Your task to perform on an android device: Open maps Image 0: 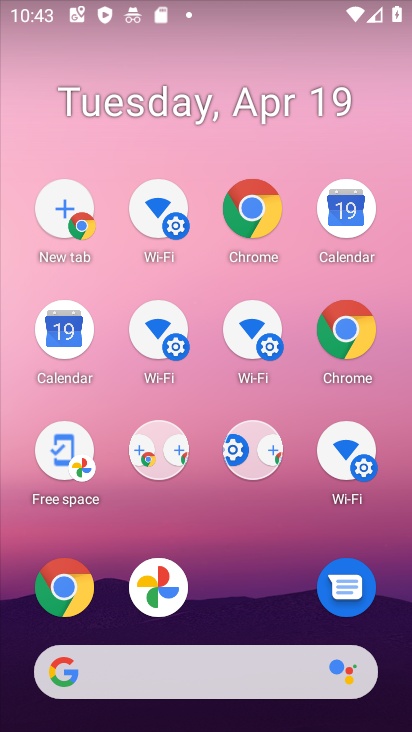
Step 0: drag from (80, 353) to (394, 602)
Your task to perform on an android device: Open maps Image 1: 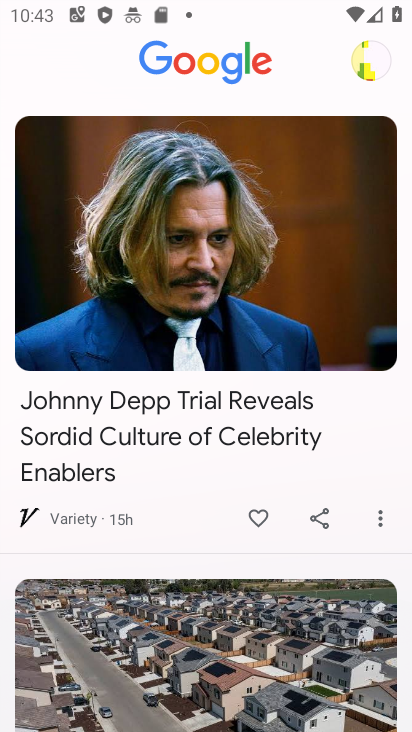
Step 1: click (386, 429)
Your task to perform on an android device: Open maps Image 2: 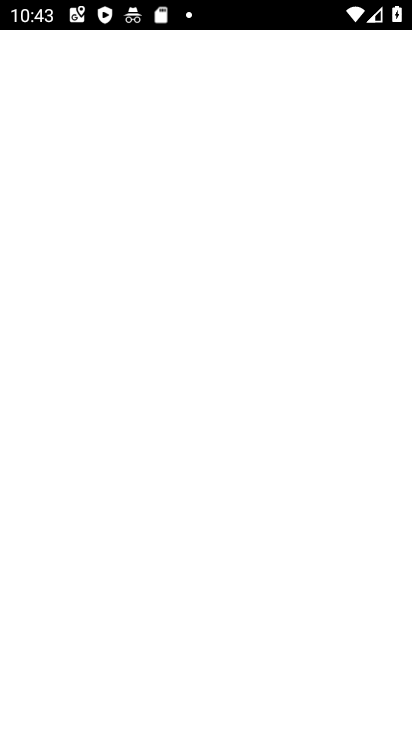
Step 2: press home button
Your task to perform on an android device: Open maps Image 3: 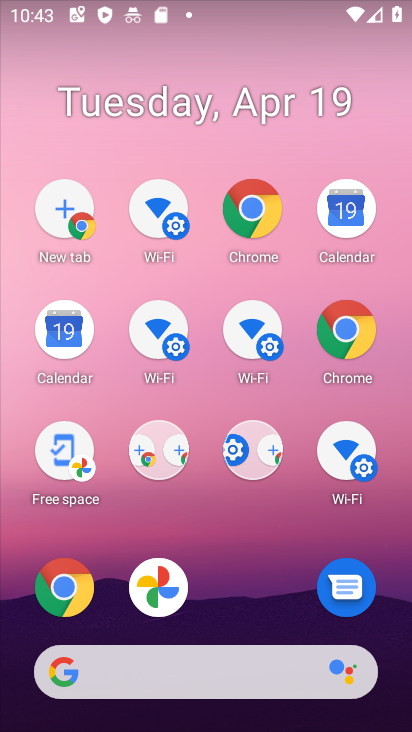
Step 3: drag from (168, 257) to (164, 197)
Your task to perform on an android device: Open maps Image 4: 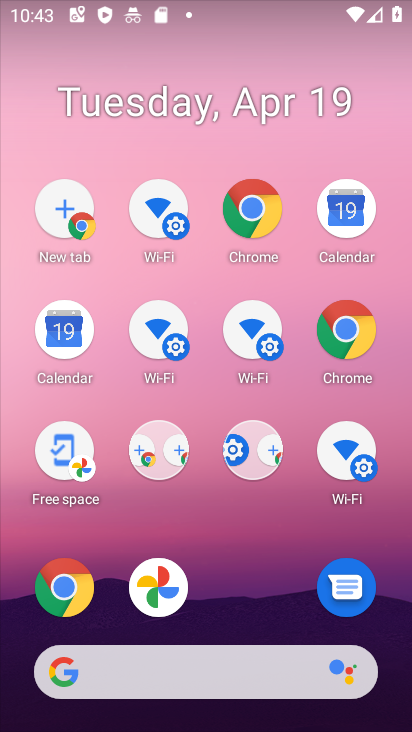
Step 4: drag from (109, 71) to (205, 133)
Your task to perform on an android device: Open maps Image 5: 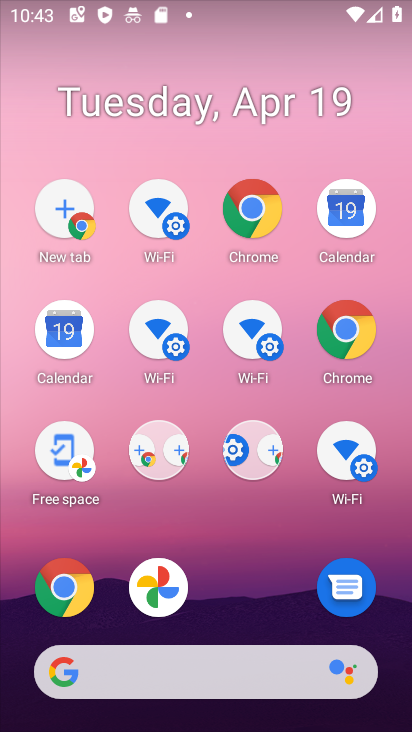
Step 5: click (192, 162)
Your task to perform on an android device: Open maps Image 6: 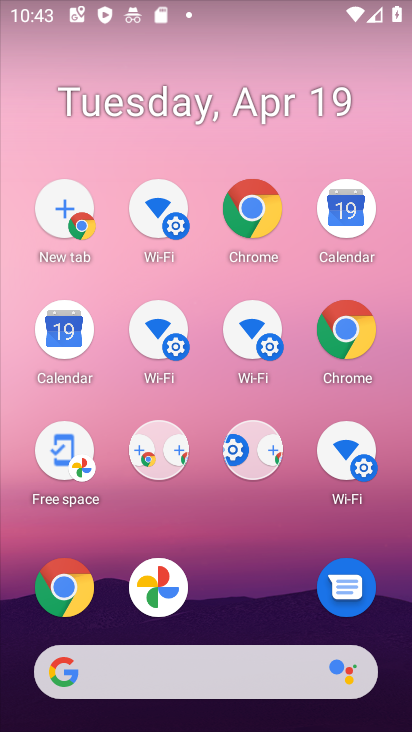
Step 6: click (268, 125)
Your task to perform on an android device: Open maps Image 7: 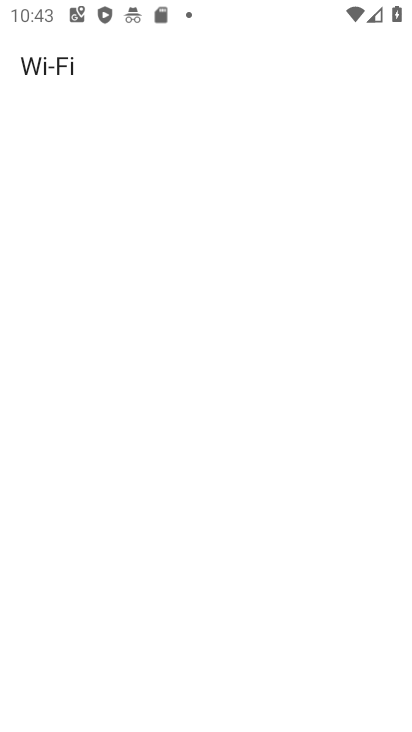
Step 7: drag from (222, 484) to (205, 170)
Your task to perform on an android device: Open maps Image 8: 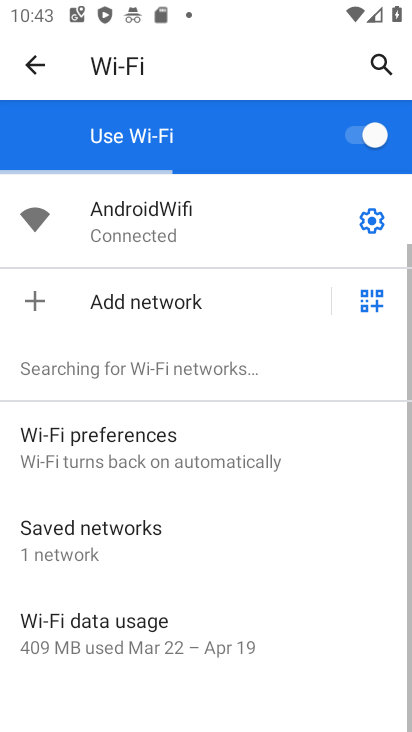
Step 8: click (203, 183)
Your task to perform on an android device: Open maps Image 9: 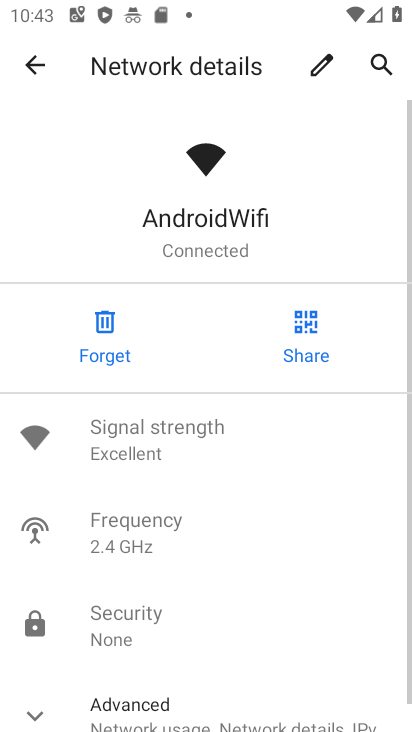
Step 9: click (29, 64)
Your task to perform on an android device: Open maps Image 10: 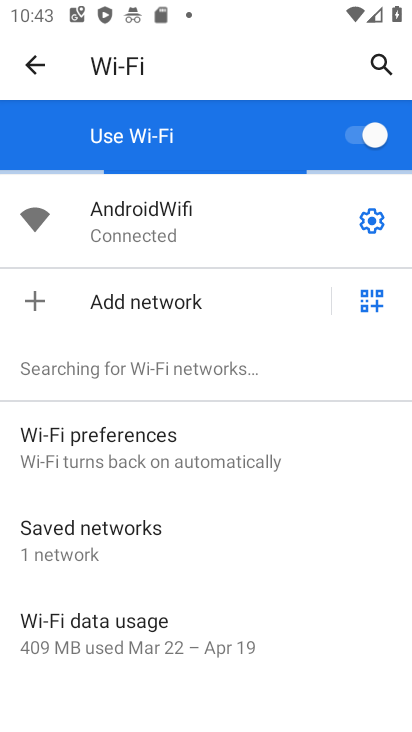
Step 10: click (24, 69)
Your task to perform on an android device: Open maps Image 11: 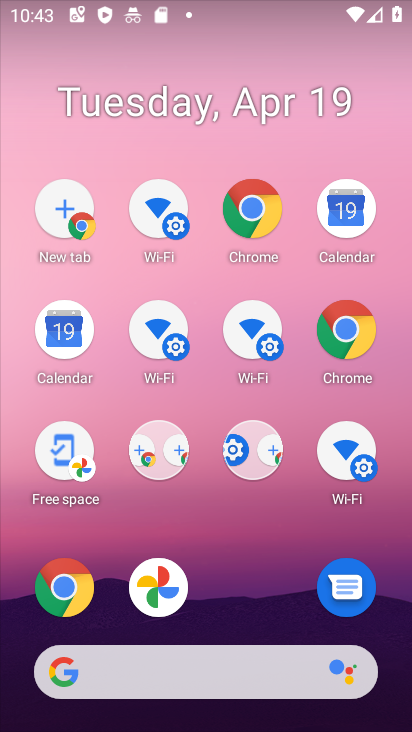
Step 11: drag from (210, 532) to (136, 248)
Your task to perform on an android device: Open maps Image 12: 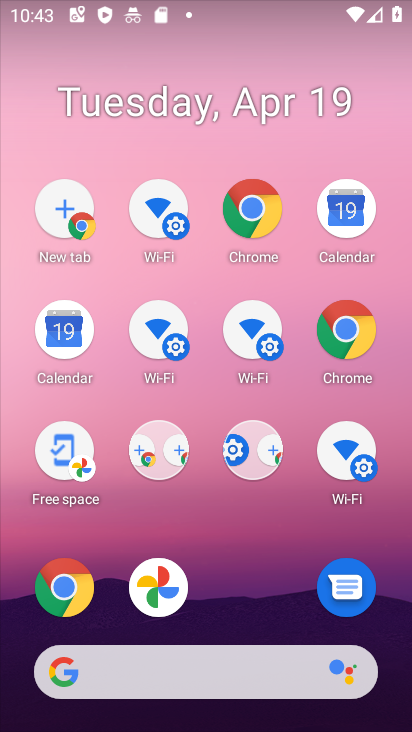
Step 12: drag from (218, 585) to (213, 207)
Your task to perform on an android device: Open maps Image 13: 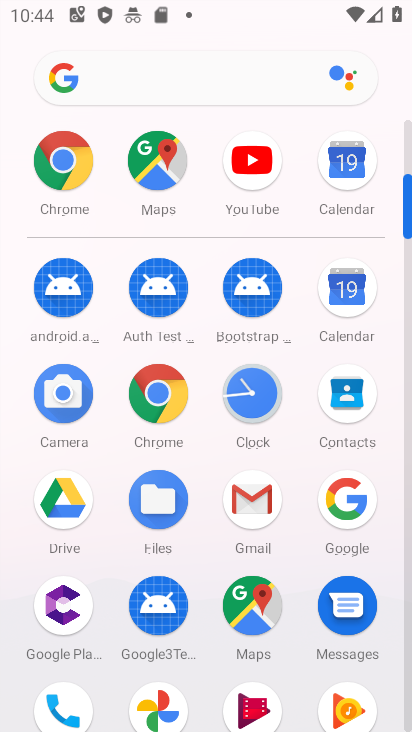
Step 13: click (143, 164)
Your task to perform on an android device: Open maps Image 14: 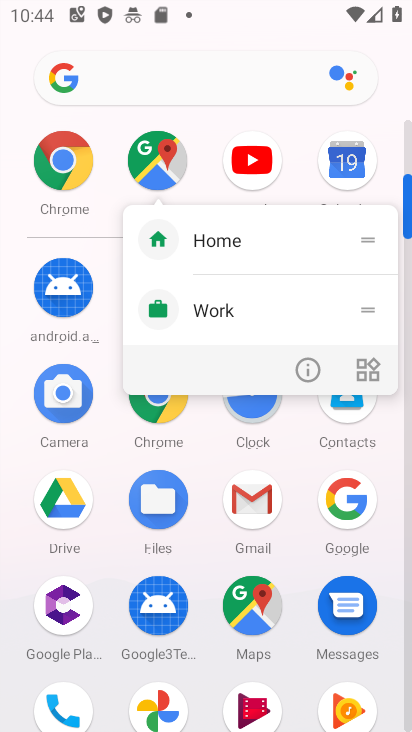
Step 14: click (147, 157)
Your task to perform on an android device: Open maps Image 15: 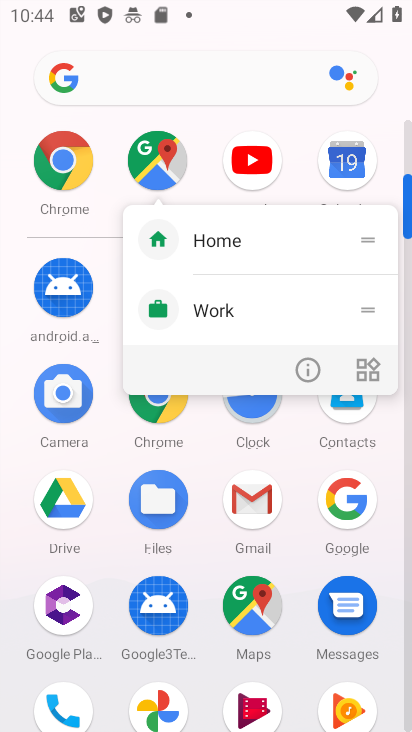
Step 15: click (154, 168)
Your task to perform on an android device: Open maps Image 16: 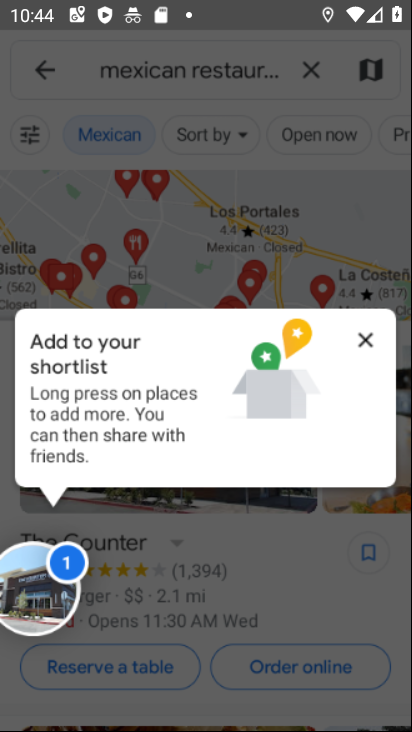
Step 16: click (154, 168)
Your task to perform on an android device: Open maps Image 17: 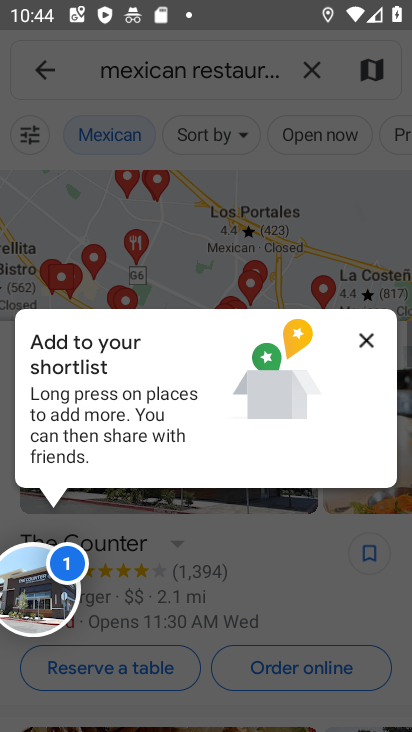
Step 17: click (342, 360)
Your task to perform on an android device: Open maps Image 18: 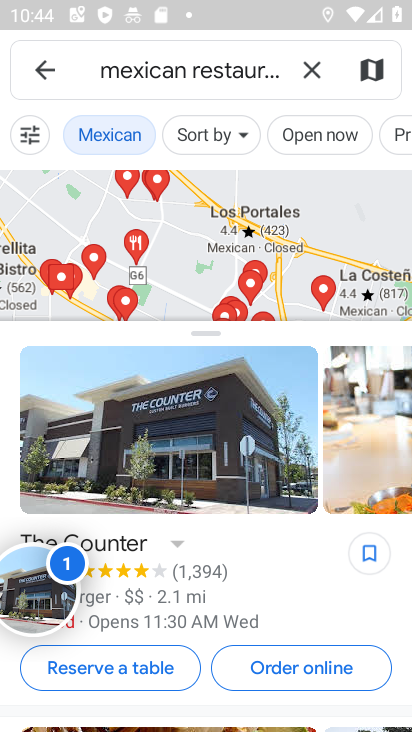
Step 18: click (38, 61)
Your task to perform on an android device: Open maps Image 19: 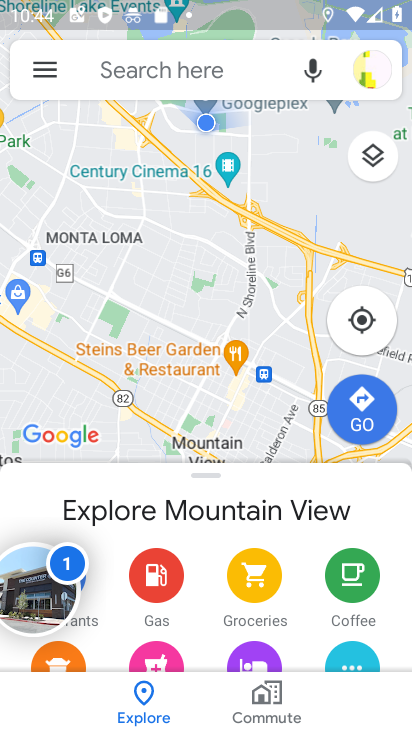
Step 19: task complete